Your task to perform on an android device: turn off location Image 0: 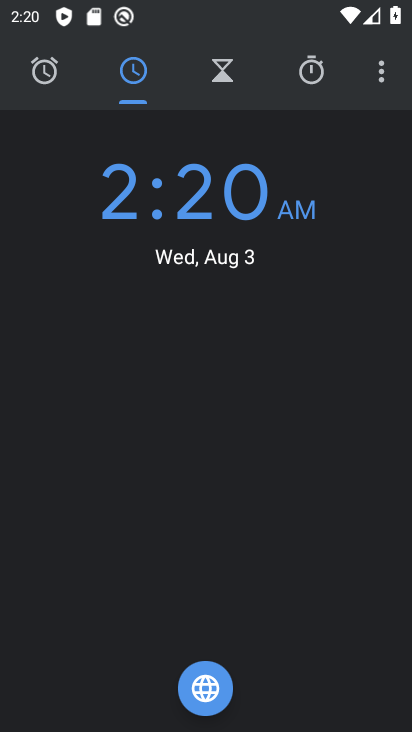
Step 0: press home button
Your task to perform on an android device: turn off location Image 1: 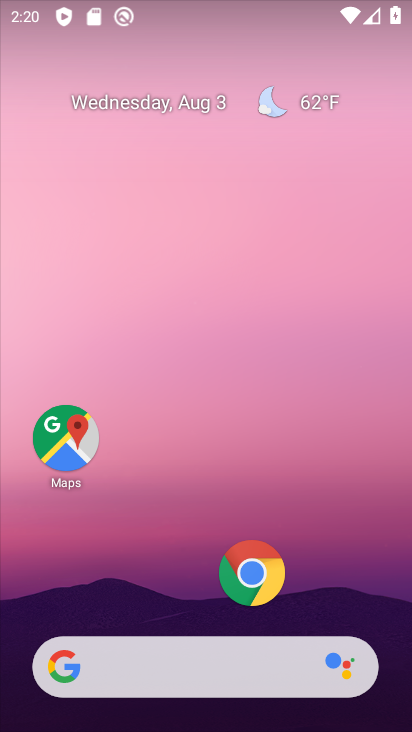
Step 1: drag from (169, 590) to (200, 10)
Your task to perform on an android device: turn off location Image 2: 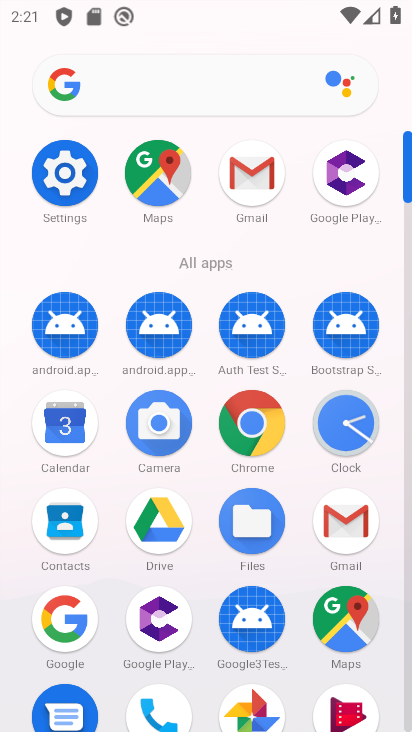
Step 2: click (68, 180)
Your task to perform on an android device: turn off location Image 3: 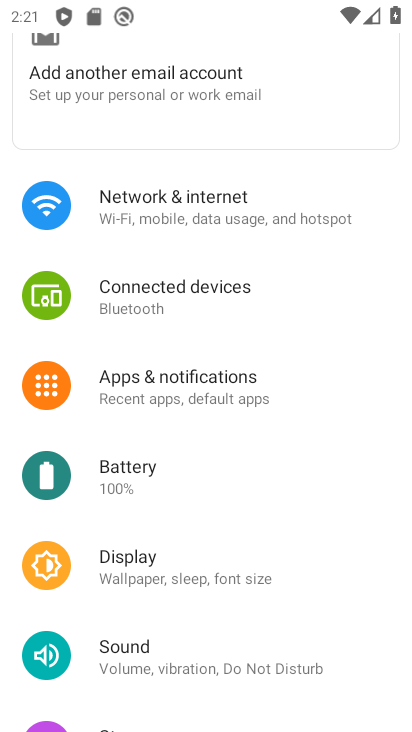
Step 3: drag from (216, 622) to (239, 276)
Your task to perform on an android device: turn off location Image 4: 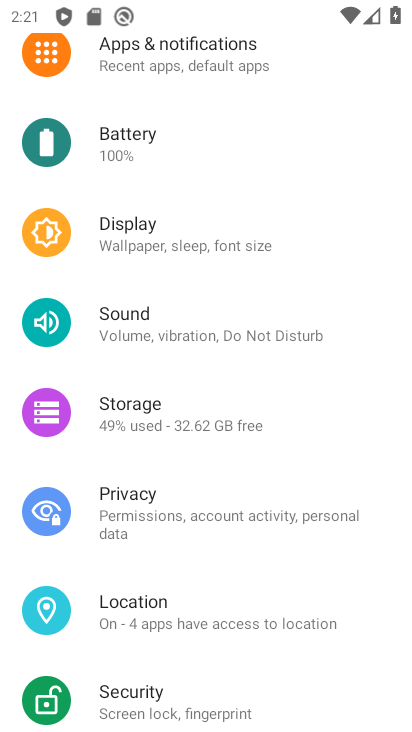
Step 4: click (208, 613)
Your task to perform on an android device: turn off location Image 5: 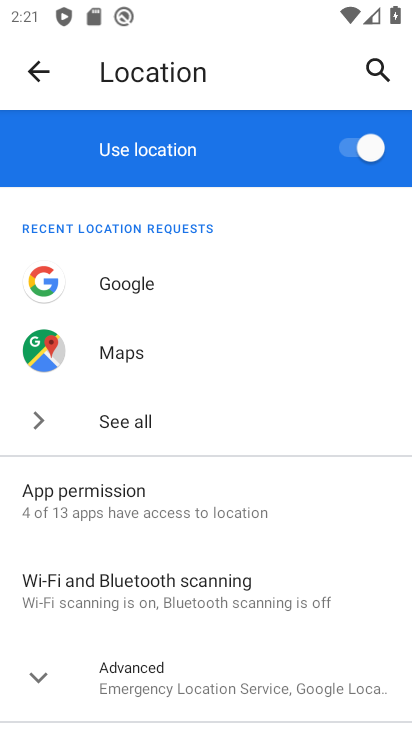
Step 5: click (320, 148)
Your task to perform on an android device: turn off location Image 6: 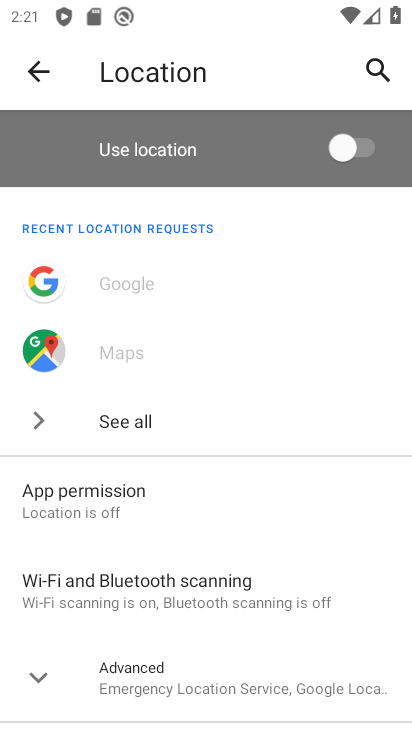
Step 6: task complete